Your task to perform on an android device: change the clock style Image 0: 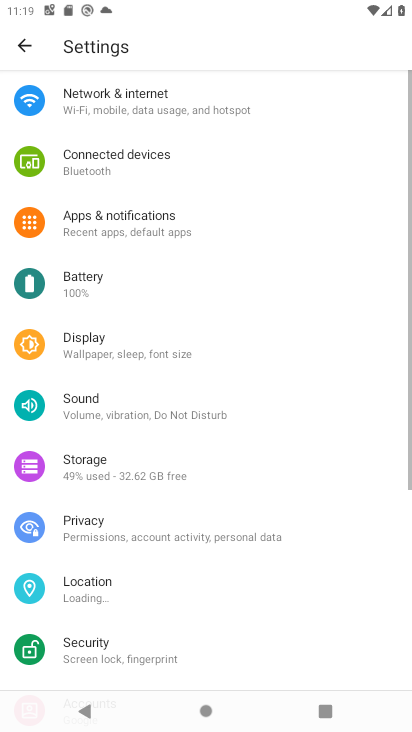
Step 0: press home button
Your task to perform on an android device: change the clock style Image 1: 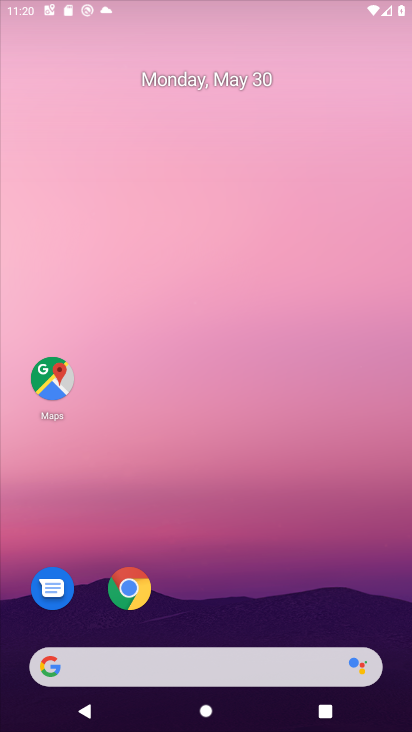
Step 1: drag from (248, 685) to (294, 34)
Your task to perform on an android device: change the clock style Image 2: 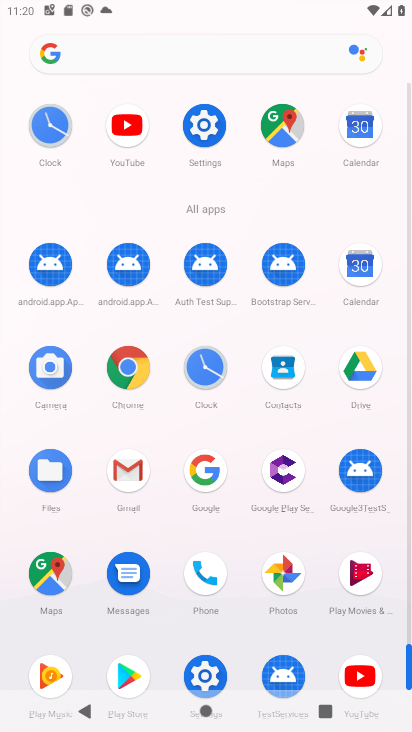
Step 2: click (215, 361)
Your task to perform on an android device: change the clock style Image 3: 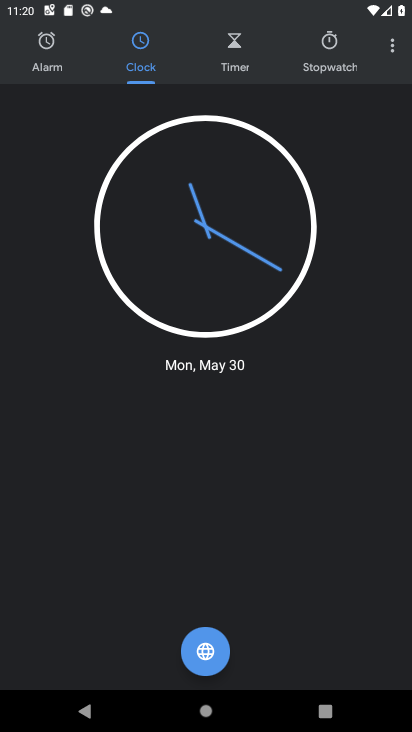
Step 3: click (388, 51)
Your task to perform on an android device: change the clock style Image 4: 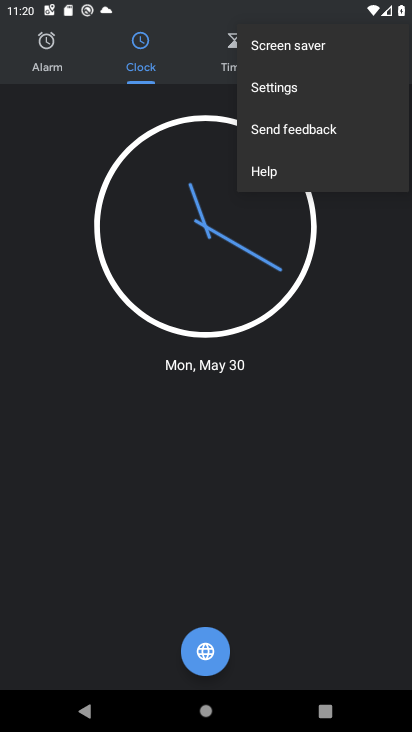
Step 4: click (307, 91)
Your task to perform on an android device: change the clock style Image 5: 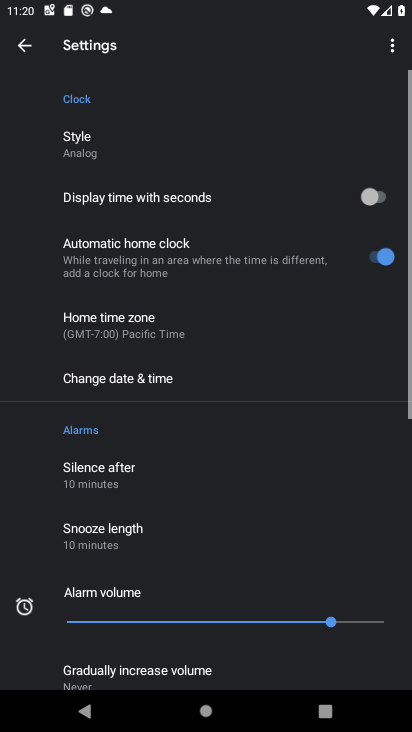
Step 5: click (256, 157)
Your task to perform on an android device: change the clock style Image 6: 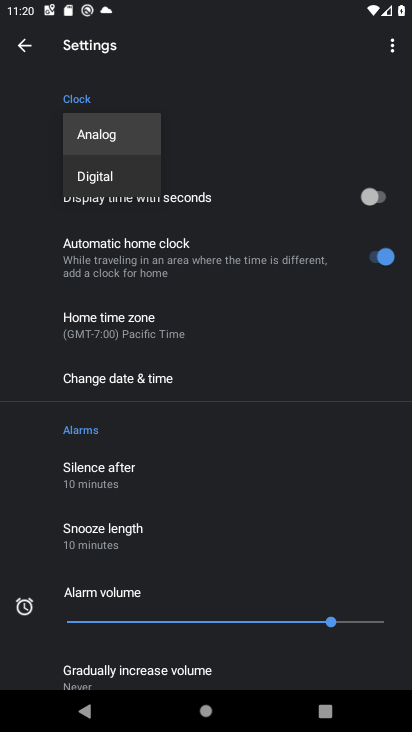
Step 6: click (130, 165)
Your task to perform on an android device: change the clock style Image 7: 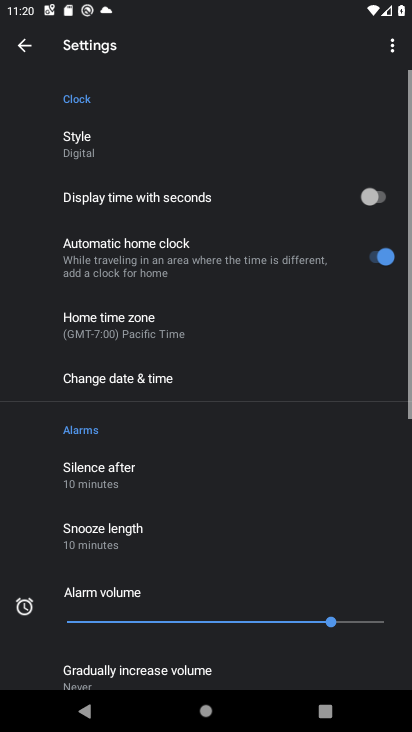
Step 7: task complete